Your task to perform on an android device: turn off notifications in google photos Image 0: 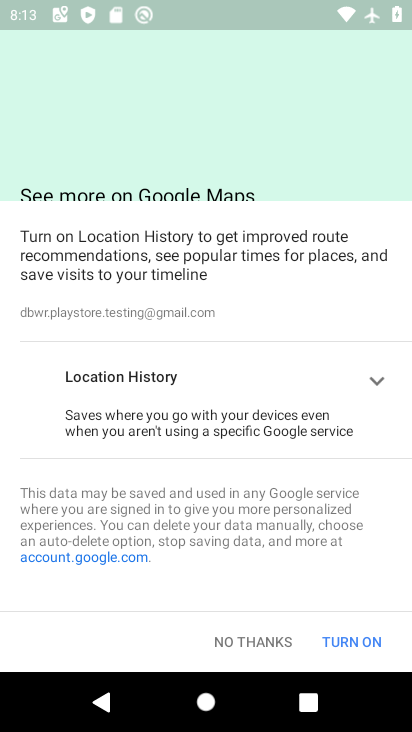
Step 0: press home button
Your task to perform on an android device: turn off notifications in google photos Image 1: 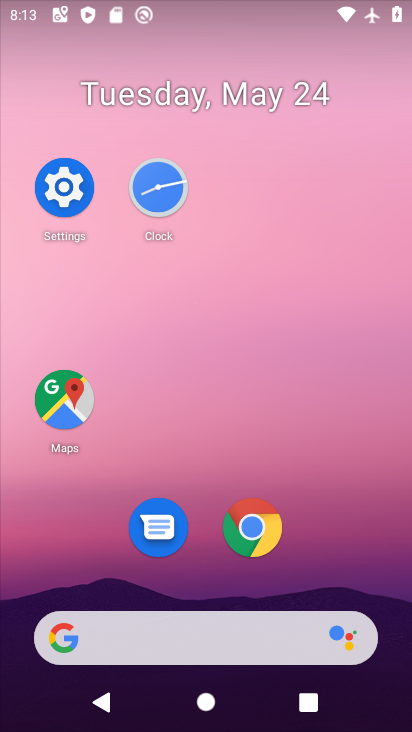
Step 1: drag from (314, 541) to (262, 114)
Your task to perform on an android device: turn off notifications in google photos Image 2: 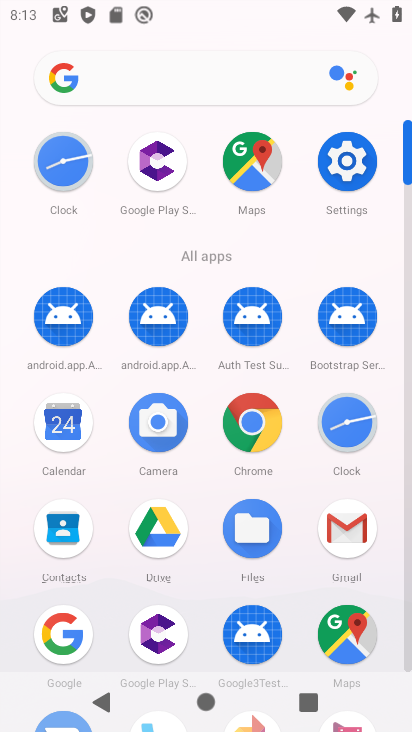
Step 2: drag from (265, 570) to (217, 247)
Your task to perform on an android device: turn off notifications in google photos Image 3: 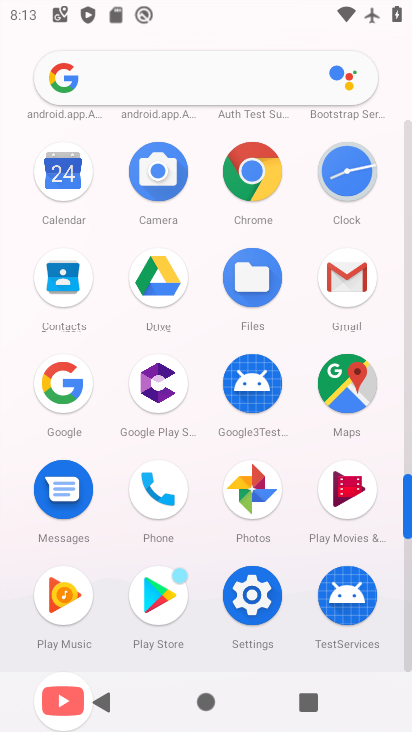
Step 3: drag from (247, 479) to (113, 284)
Your task to perform on an android device: turn off notifications in google photos Image 4: 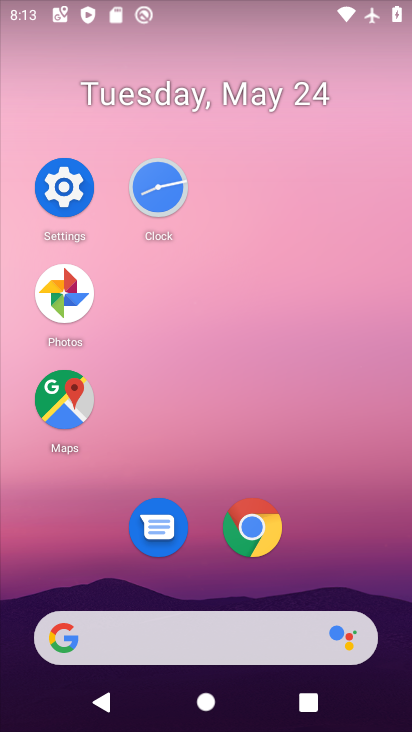
Step 4: click (68, 280)
Your task to perform on an android device: turn off notifications in google photos Image 5: 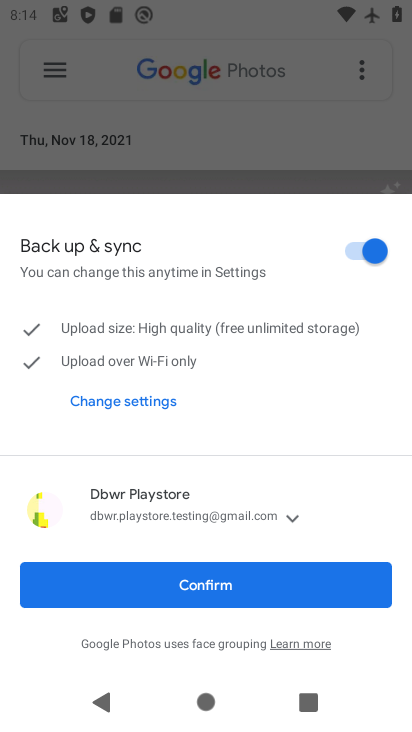
Step 5: click (217, 590)
Your task to perform on an android device: turn off notifications in google photos Image 6: 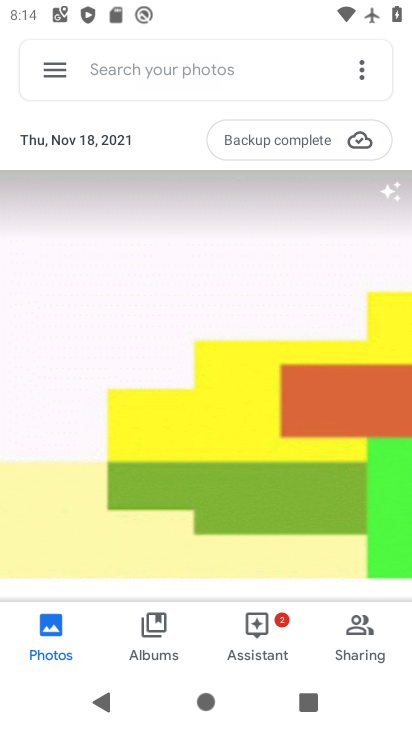
Step 6: click (48, 74)
Your task to perform on an android device: turn off notifications in google photos Image 7: 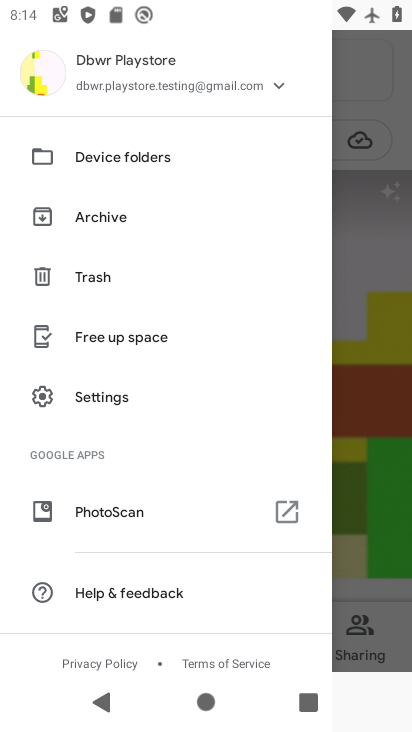
Step 7: click (134, 398)
Your task to perform on an android device: turn off notifications in google photos Image 8: 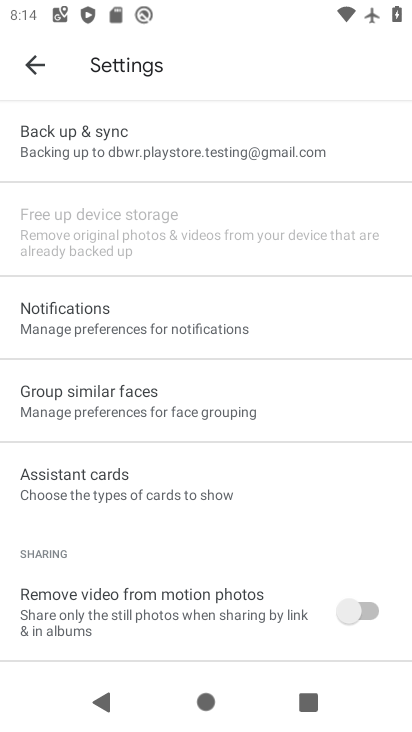
Step 8: click (111, 333)
Your task to perform on an android device: turn off notifications in google photos Image 9: 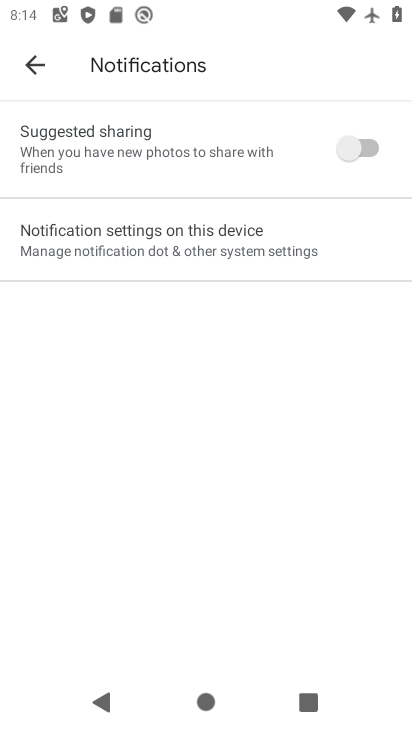
Step 9: click (233, 233)
Your task to perform on an android device: turn off notifications in google photos Image 10: 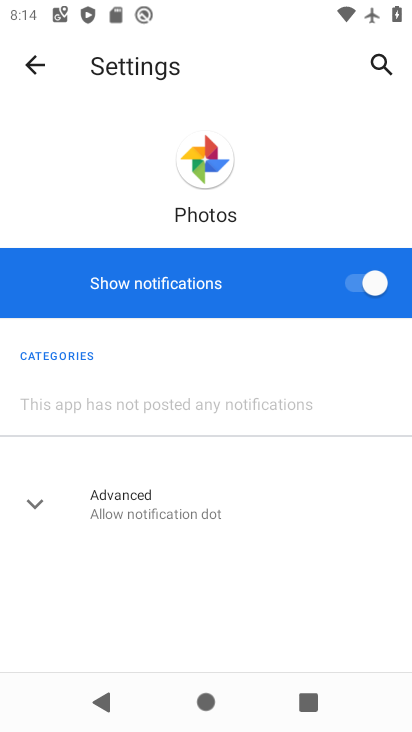
Step 10: click (381, 302)
Your task to perform on an android device: turn off notifications in google photos Image 11: 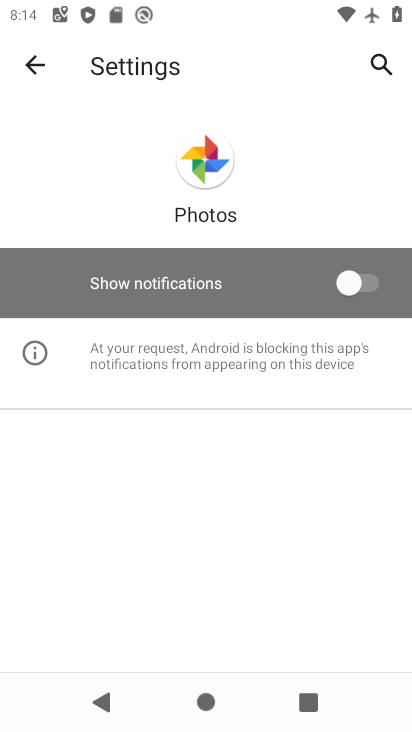
Step 11: task complete